Your task to perform on an android device: make emails show in primary in the gmail app Image 0: 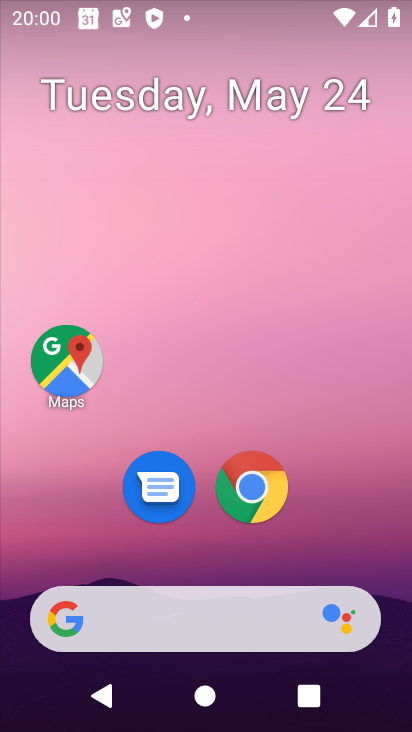
Step 0: drag from (107, 484) to (325, 151)
Your task to perform on an android device: make emails show in primary in the gmail app Image 1: 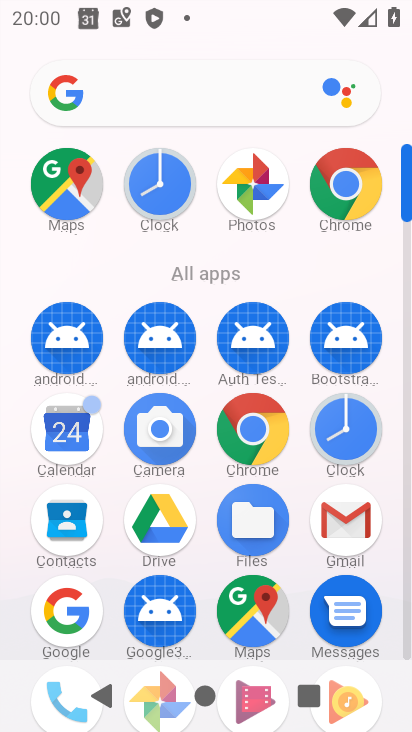
Step 1: click (339, 524)
Your task to perform on an android device: make emails show in primary in the gmail app Image 2: 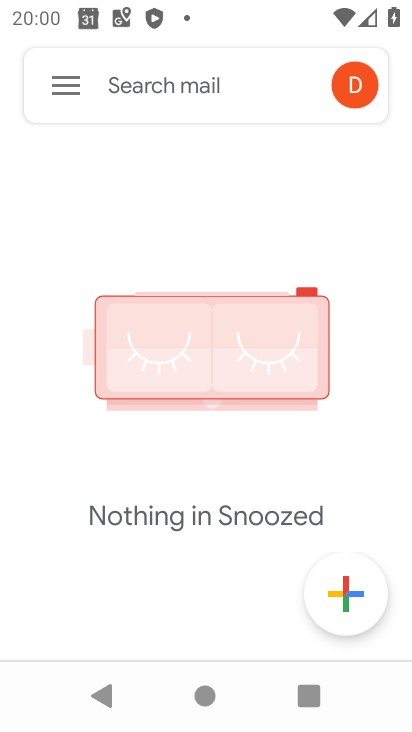
Step 2: click (70, 90)
Your task to perform on an android device: make emails show in primary in the gmail app Image 3: 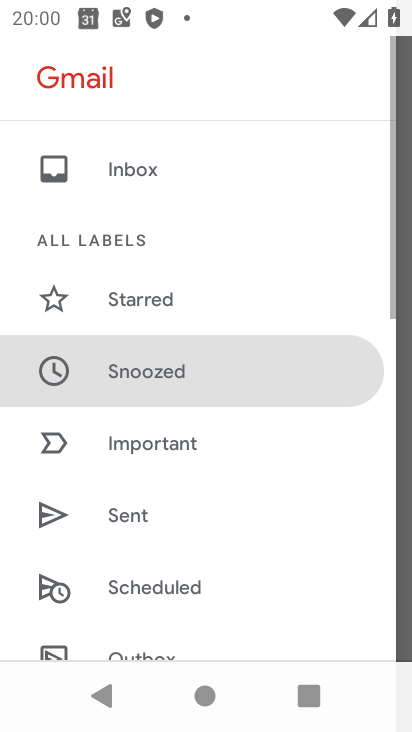
Step 3: click (146, 162)
Your task to perform on an android device: make emails show in primary in the gmail app Image 4: 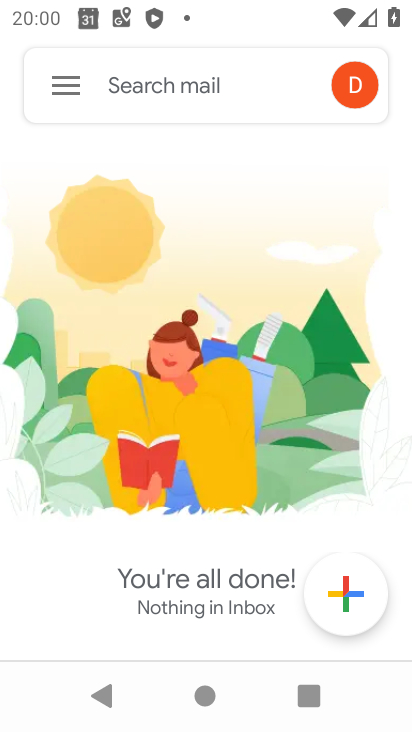
Step 4: task complete